Your task to perform on an android device: open a new tab in the chrome app Image 0: 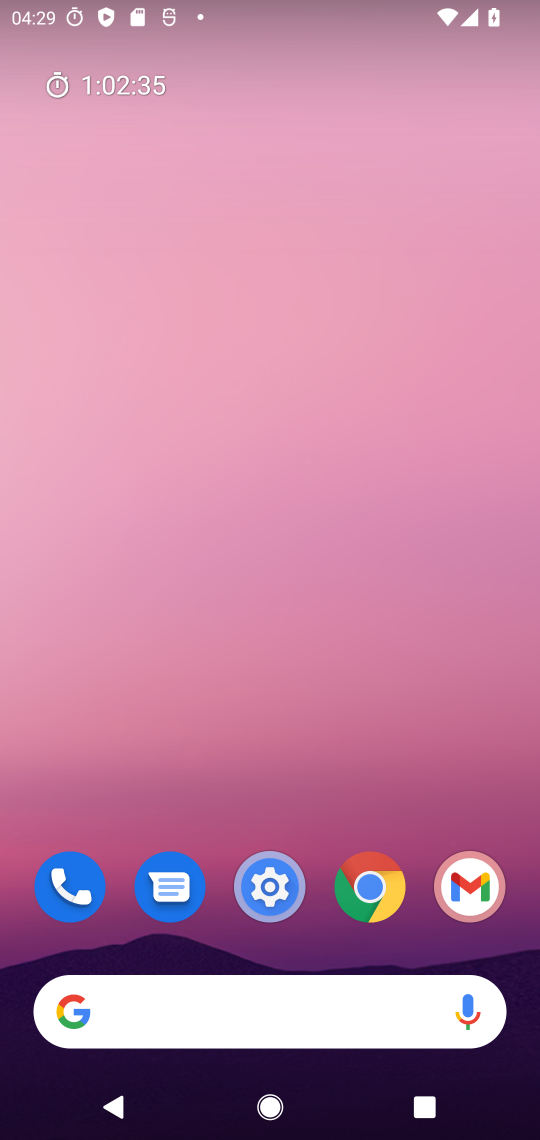
Step 0: press home button
Your task to perform on an android device: open a new tab in the chrome app Image 1: 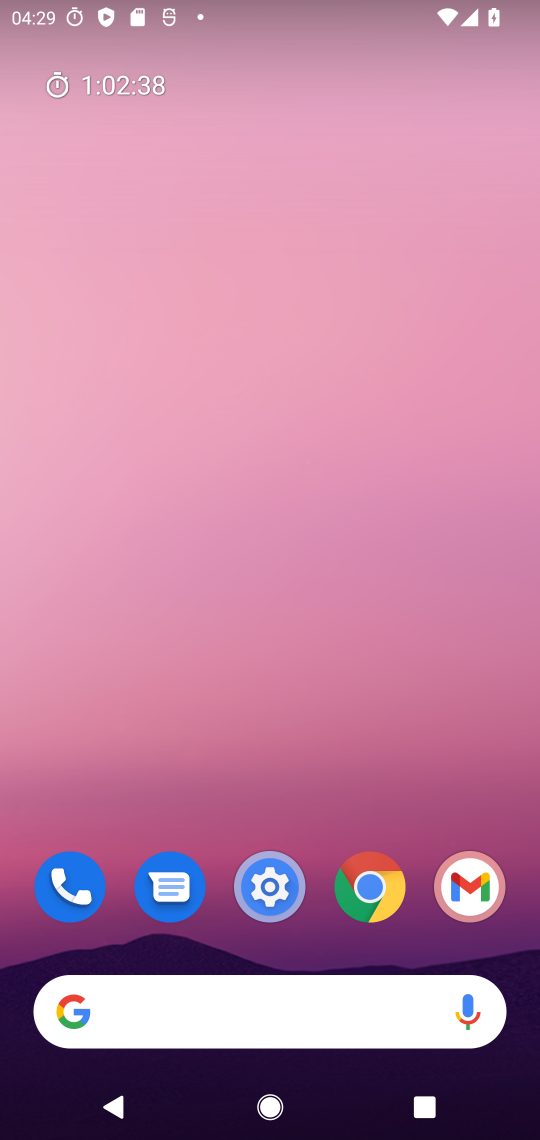
Step 1: drag from (401, 785) to (423, 220)
Your task to perform on an android device: open a new tab in the chrome app Image 2: 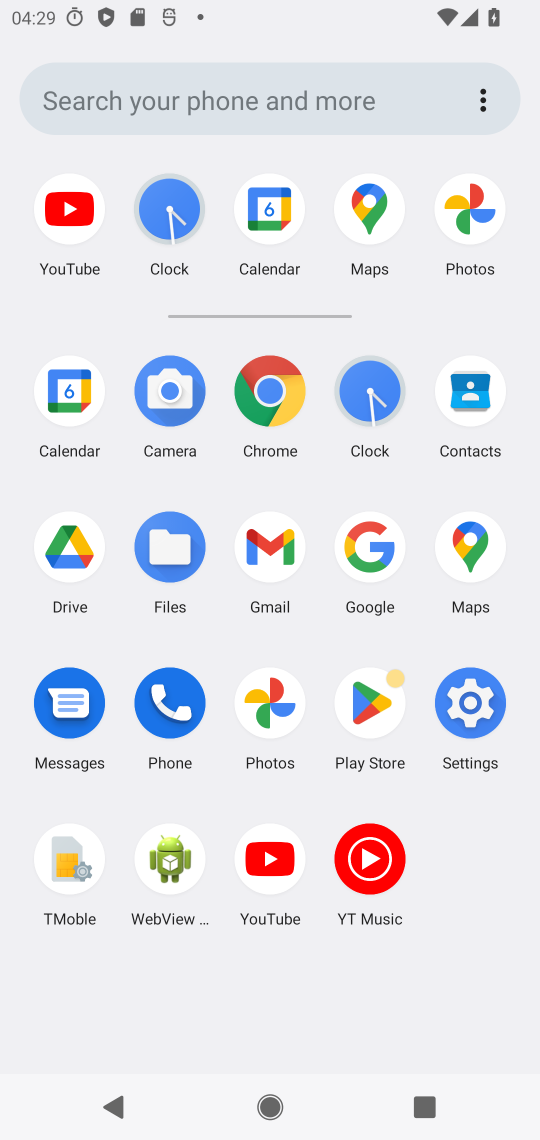
Step 2: click (268, 397)
Your task to perform on an android device: open a new tab in the chrome app Image 3: 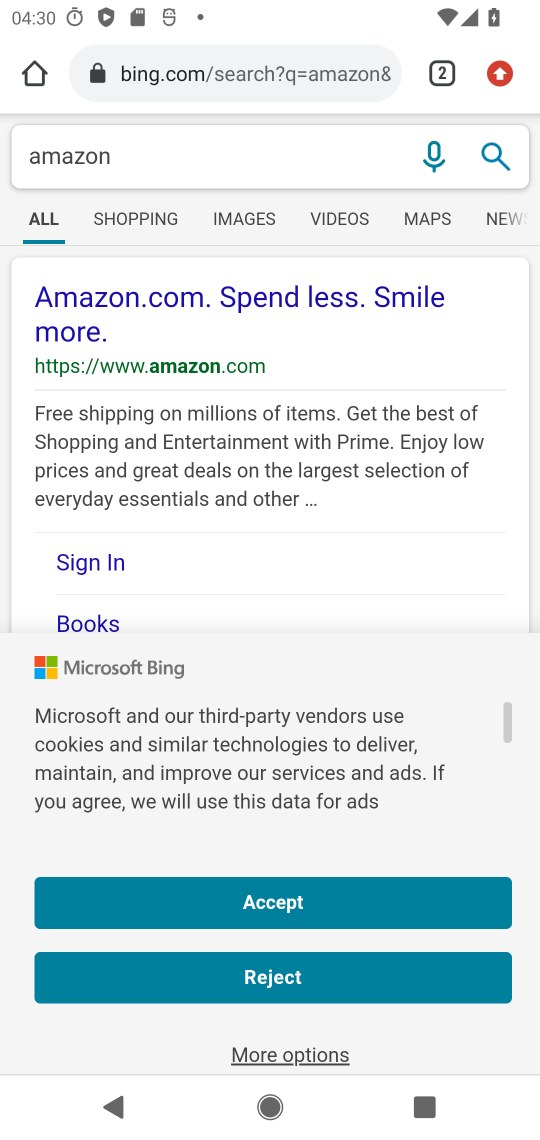
Step 3: click (498, 67)
Your task to perform on an android device: open a new tab in the chrome app Image 4: 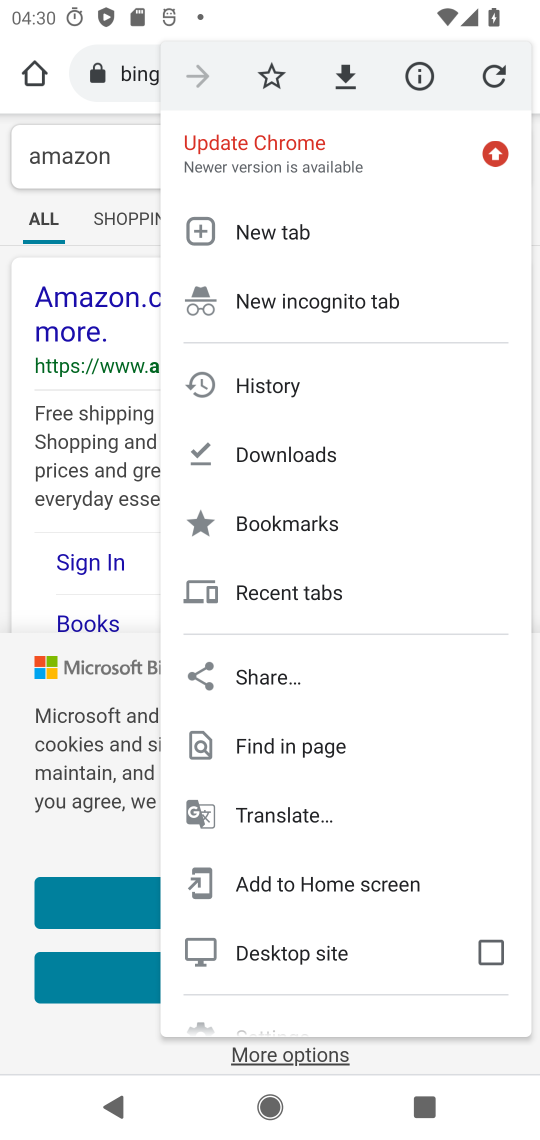
Step 4: click (302, 242)
Your task to perform on an android device: open a new tab in the chrome app Image 5: 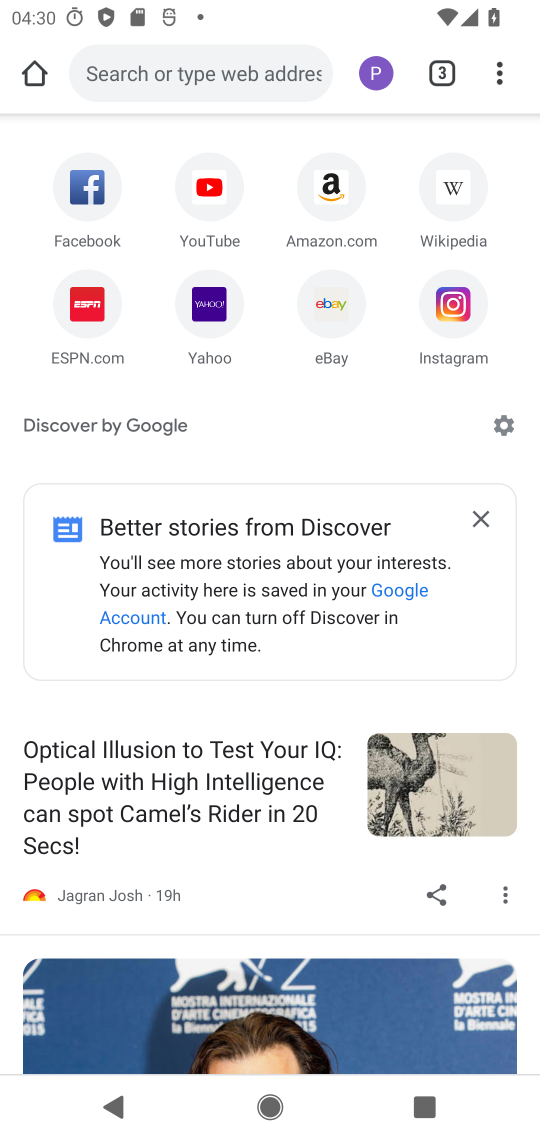
Step 5: task complete